Your task to perform on an android device: allow notifications from all sites in the chrome app Image 0: 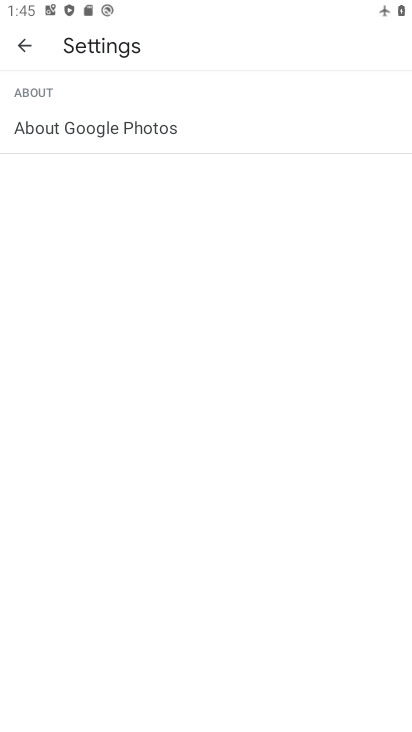
Step 0: press home button
Your task to perform on an android device: allow notifications from all sites in the chrome app Image 1: 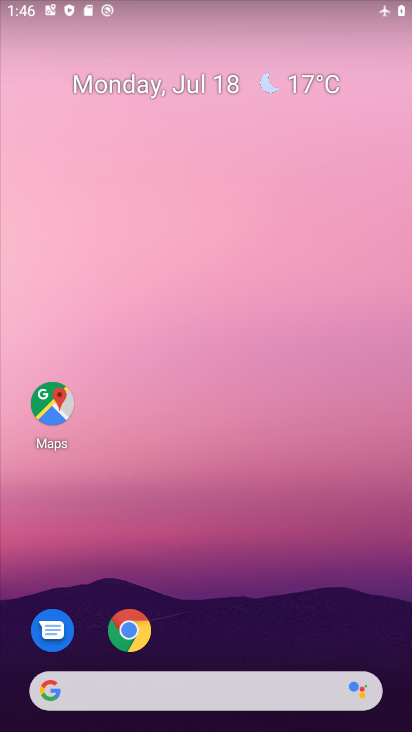
Step 1: drag from (243, 610) to (212, 16)
Your task to perform on an android device: allow notifications from all sites in the chrome app Image 2: 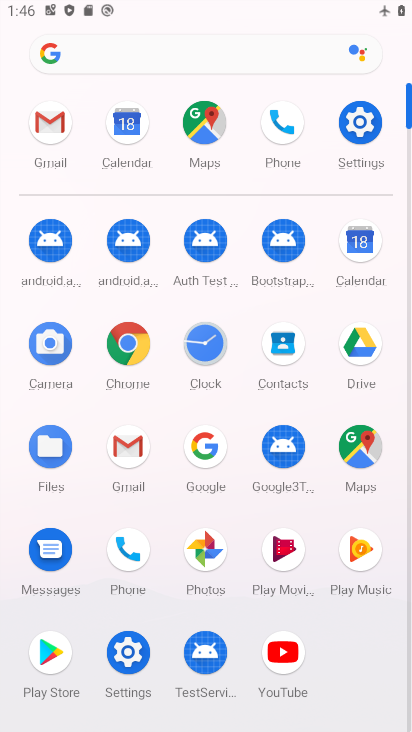
Step 2: click (130, 347)
Your task to perform on an android device: allow notifications from all sites in the chrome app Image 3: 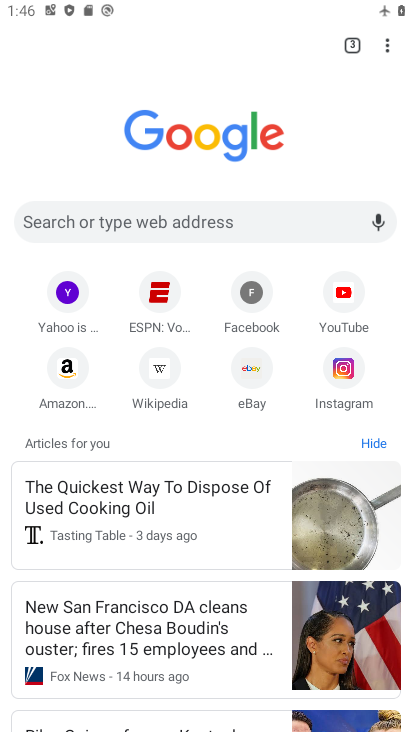
Step 3: click (386, 44)
Your task to perform on an android device: allow notifications from all sites in the chrome app Image 4: 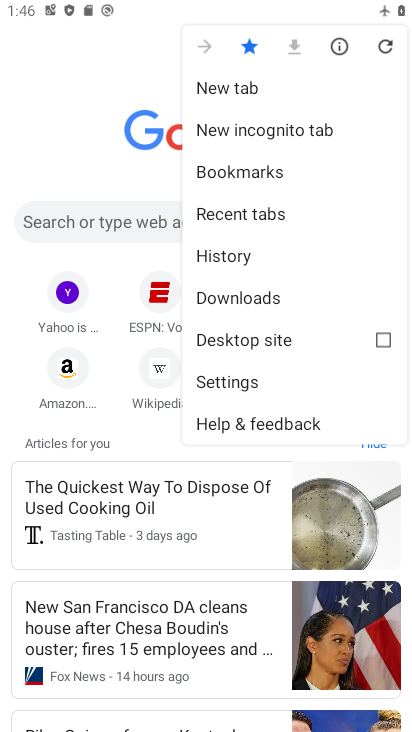
Step 4: click (255, 375)
Your task to perform on an android device: allow notifications from all sites in the chrome app Image 5: 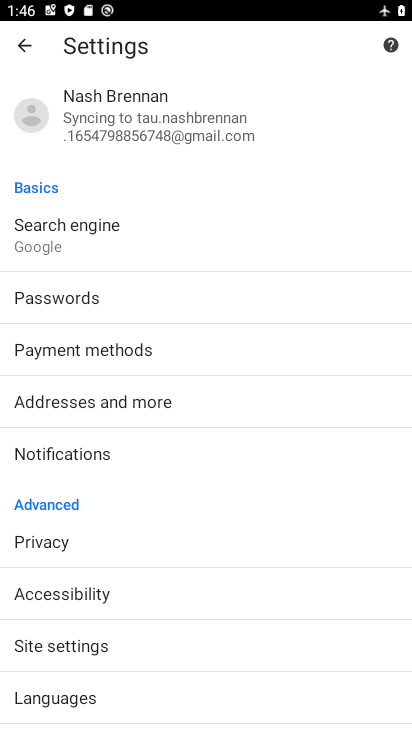
Step 5: click (113, 448)
Your task to perform on an android device: allow notifications from all sites in the chrome app Image 6: 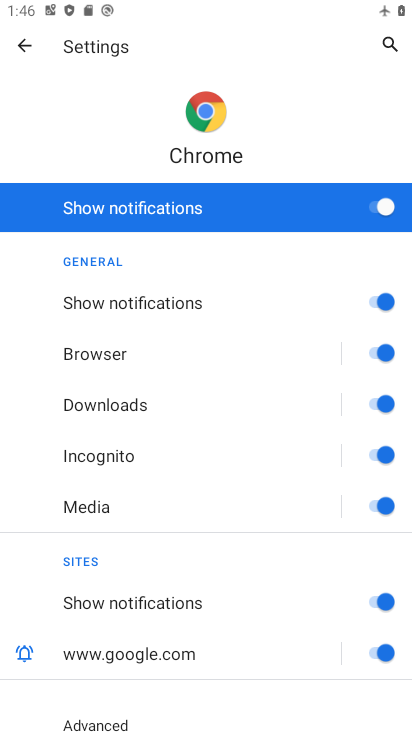
Step 6: task complete